Your task to perform on an android device: Search for vegetarian restaurants on Maps Image 0: 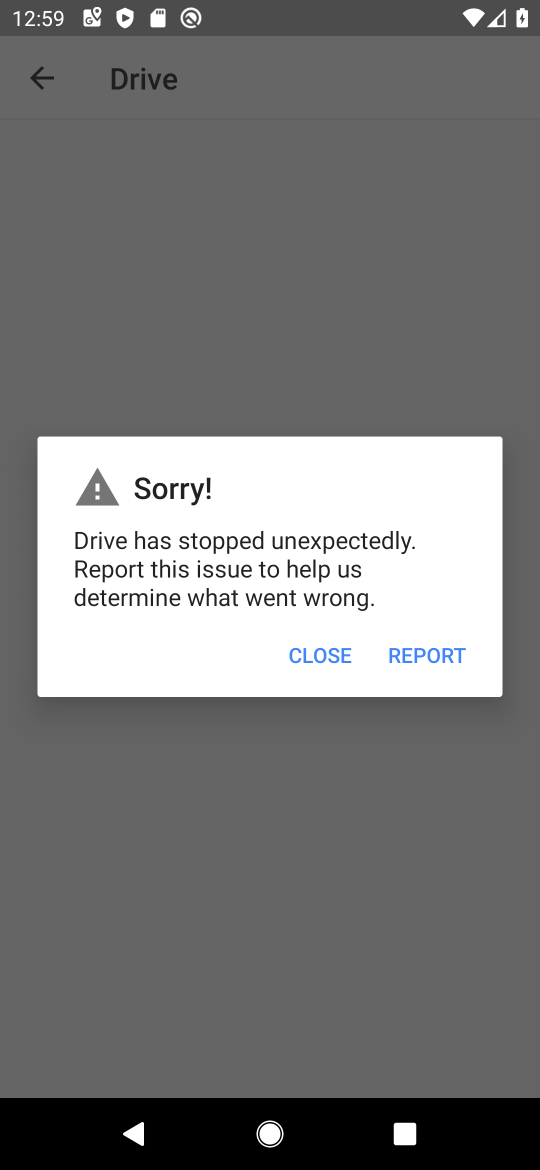
Step 0: press home button
Your task to perform on an android device: Search for vegetarian restaurants on Maps Image 1: 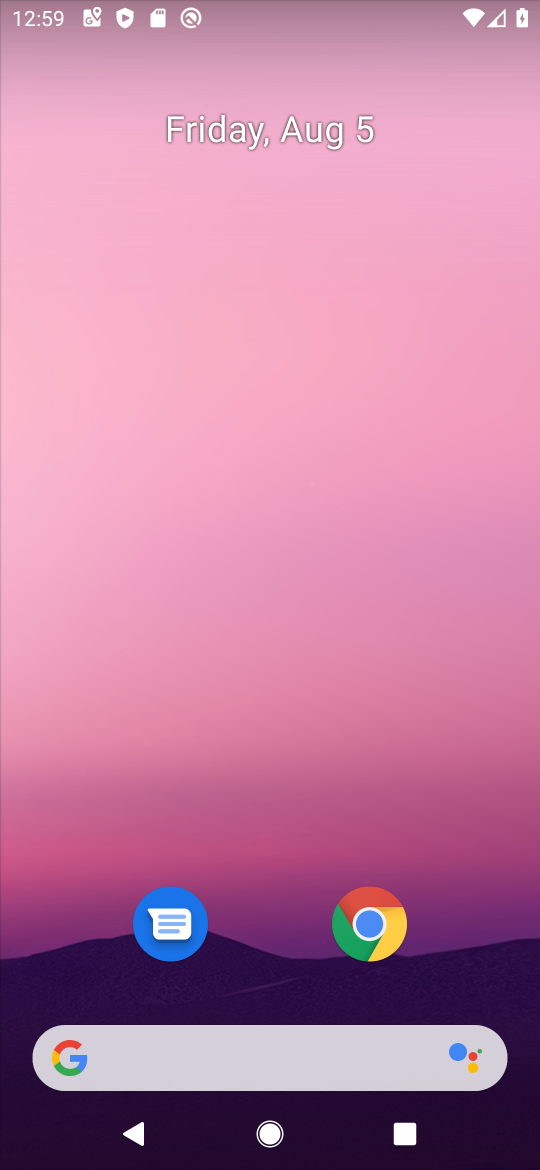
Step 1: drag from (245, 1056) to (266, 408)
Your task to perform on an android device: Search for vegetarian restaurants on Maps Image 2: 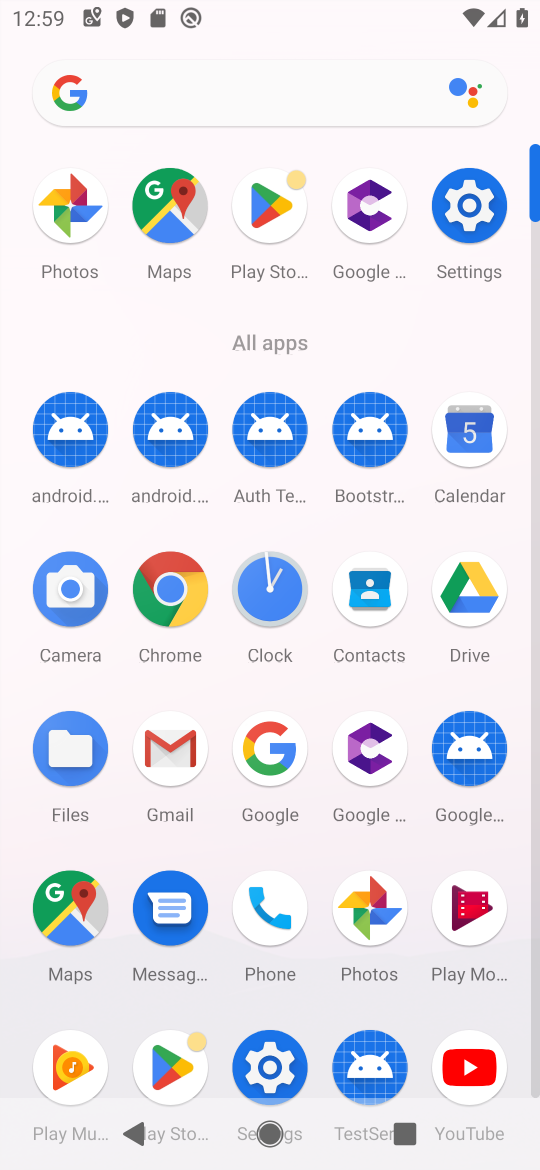
Step 2: click (70, 913)
Your task to perform on an android device: Search for vegetarian restaurants on Maps Image 3: 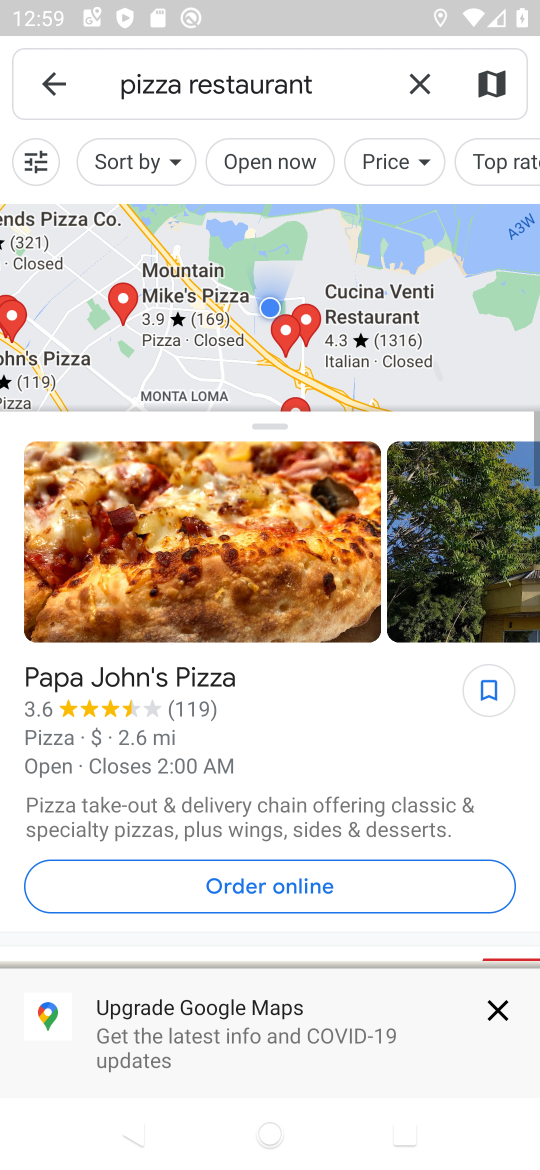
Step 3: click (424, 88)
Your task to perform on an android device: Search for vegetarian restaurants on Maps Image 4: 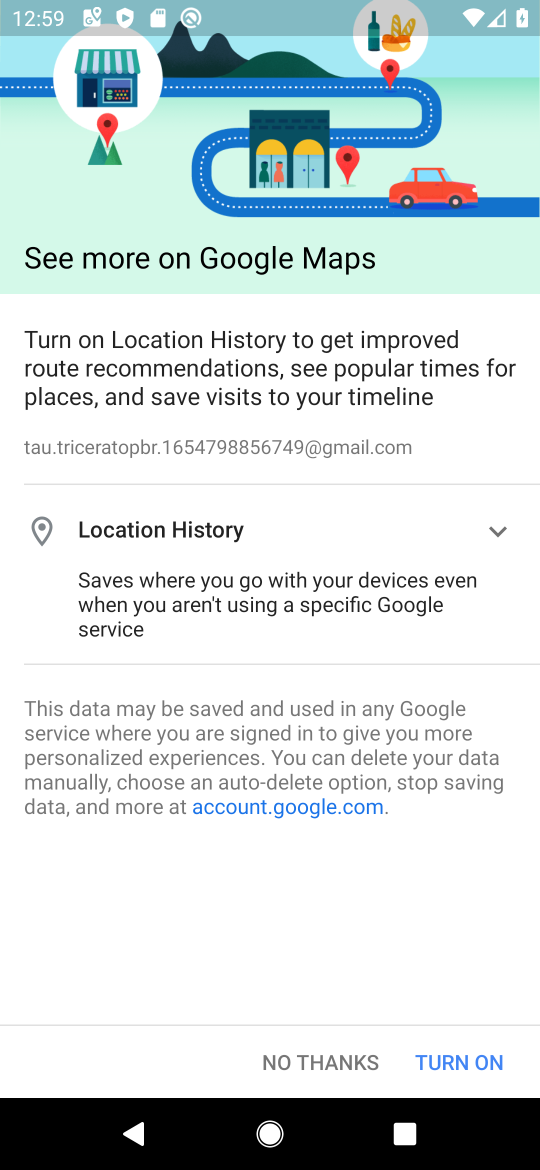
Step 4: click (359, 1057)
Your task to perform on an android device: Search for vegetarian restaurants on Maps Image 5: 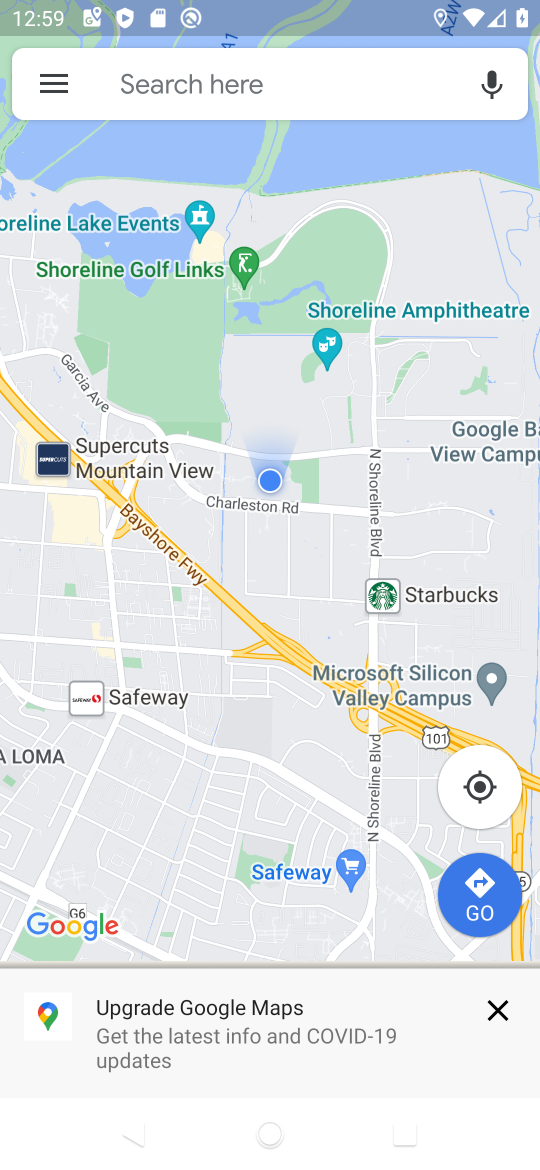
Step 5: click (348, 86)
Your task to perform on an android device: Search for vegetarian restaurants on Maps Image 6: 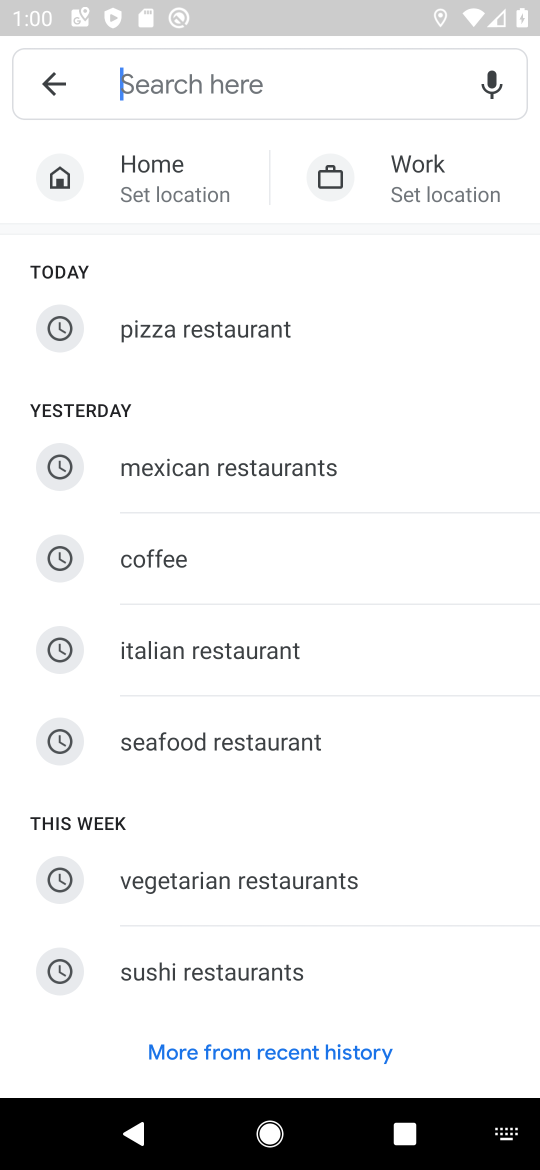
Step 6: type "vegetarian restaurants"
Your task to perform on an android device: Search for vegetarian restaurants on Maps Image 7: 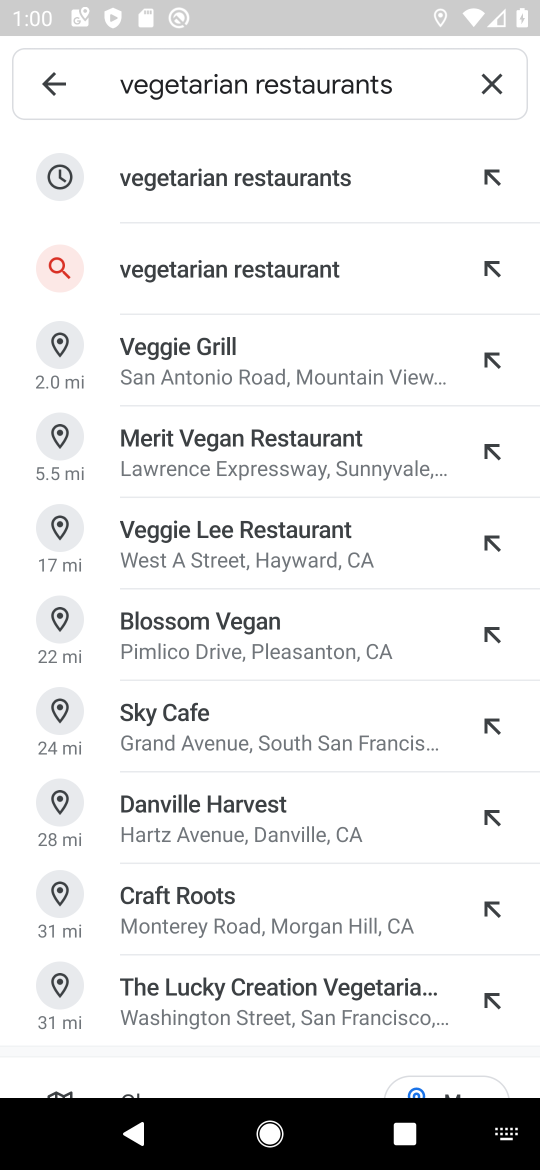
Step 7: click (256, 177)
Your task to perform on an android device: Search for vegetarian restaurants on Maps Image 8: 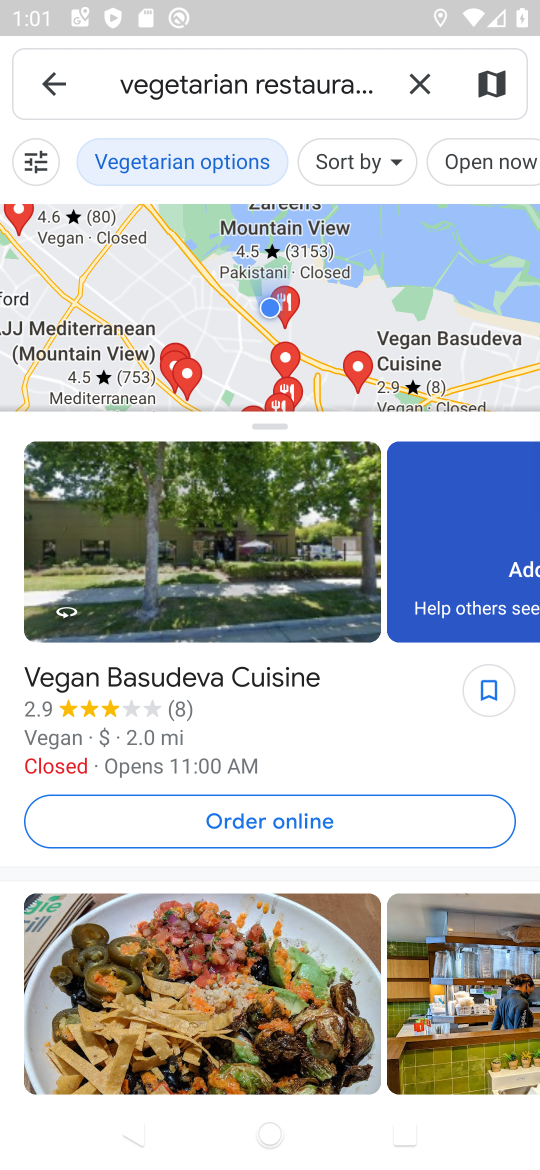
Step 8: task complete